Your task to perform on an android device: open app "Lyft - Rideshare, Bikes, Scooters & Transit" (install if not already installed) Image 0: 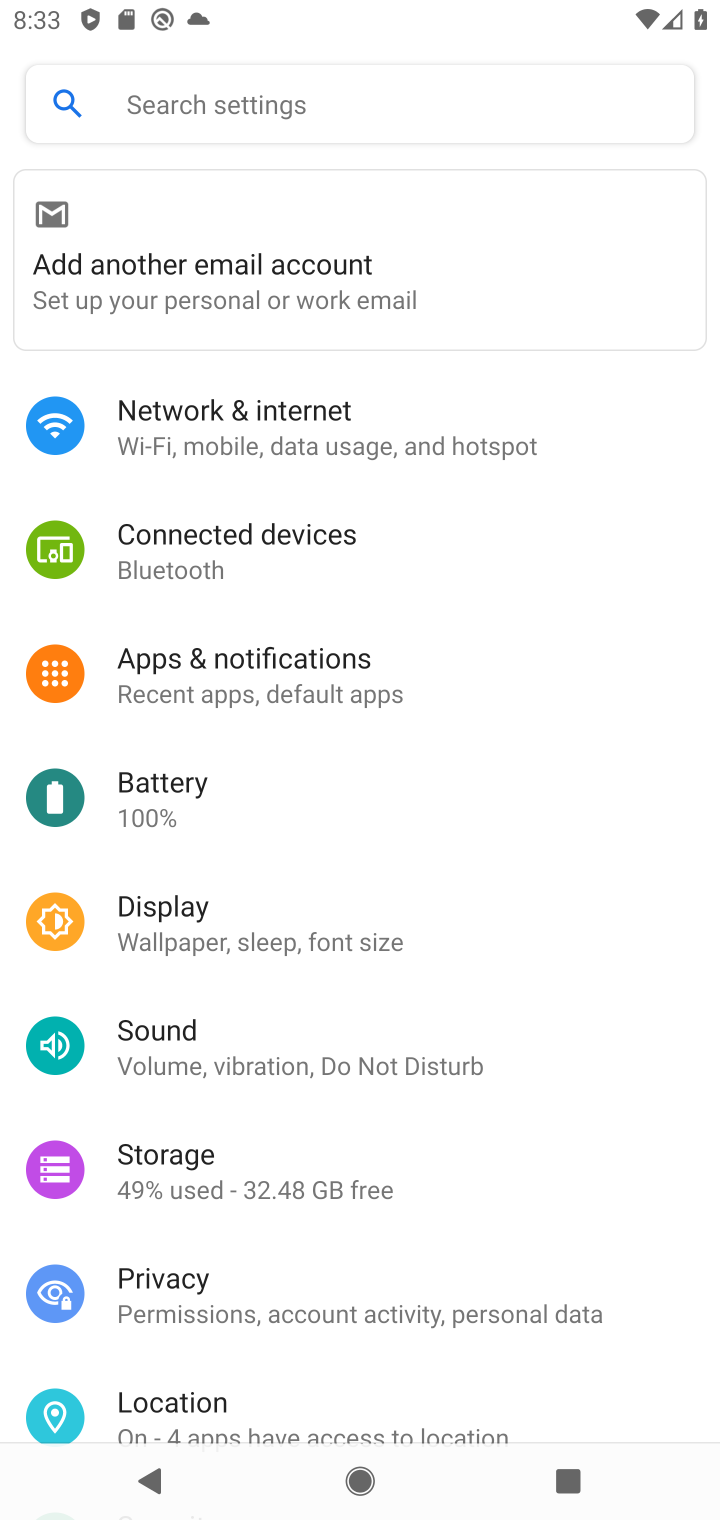
Step 0: press home button
Your task to perform on an android device: open app "Lyft - Rideshare, Bikes, Scooters & Transit" (install if not already installed) Image 1: 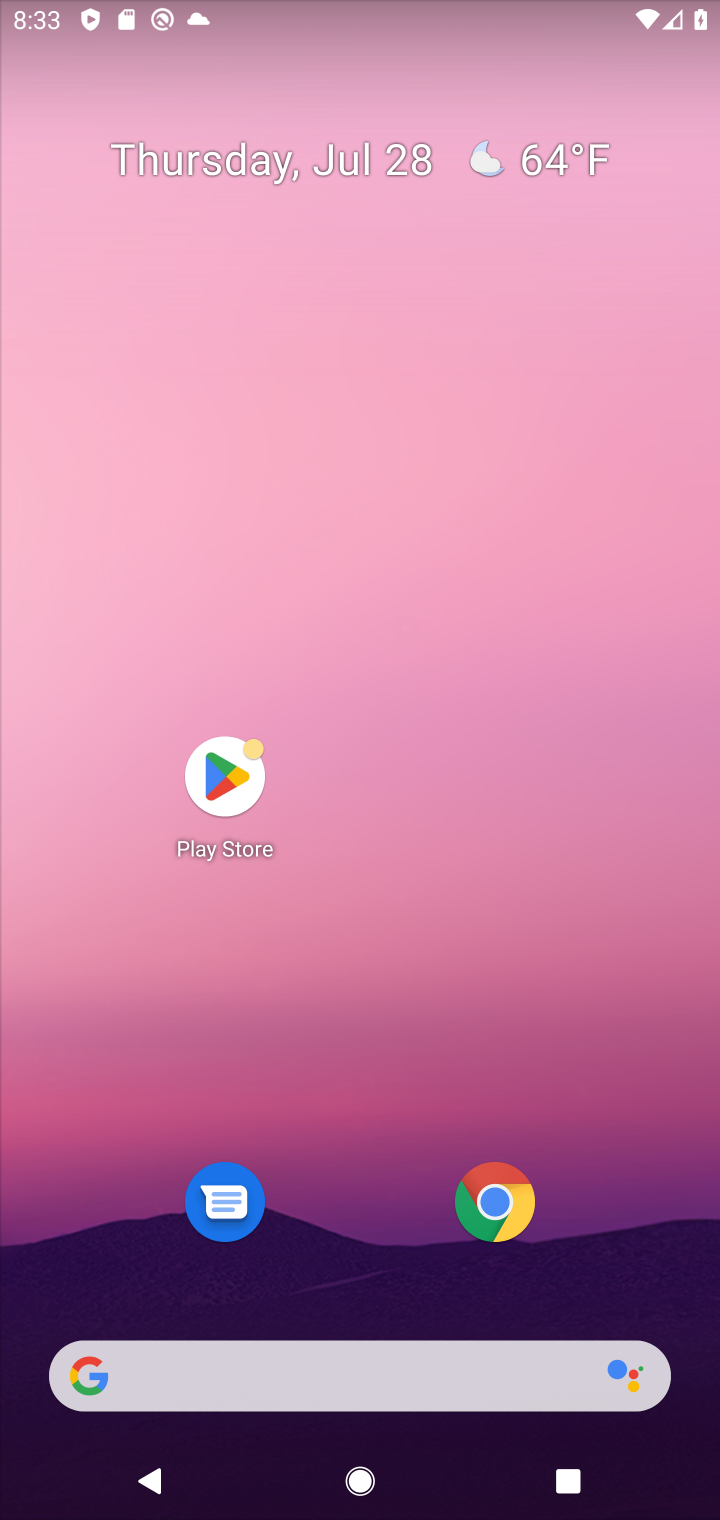
Step 1: click (229, 769)
Your task to perform on an android device: open app "Lyft - Rideshare, Bikes, Scooters & Transit" (install if not already installed) Image 2: 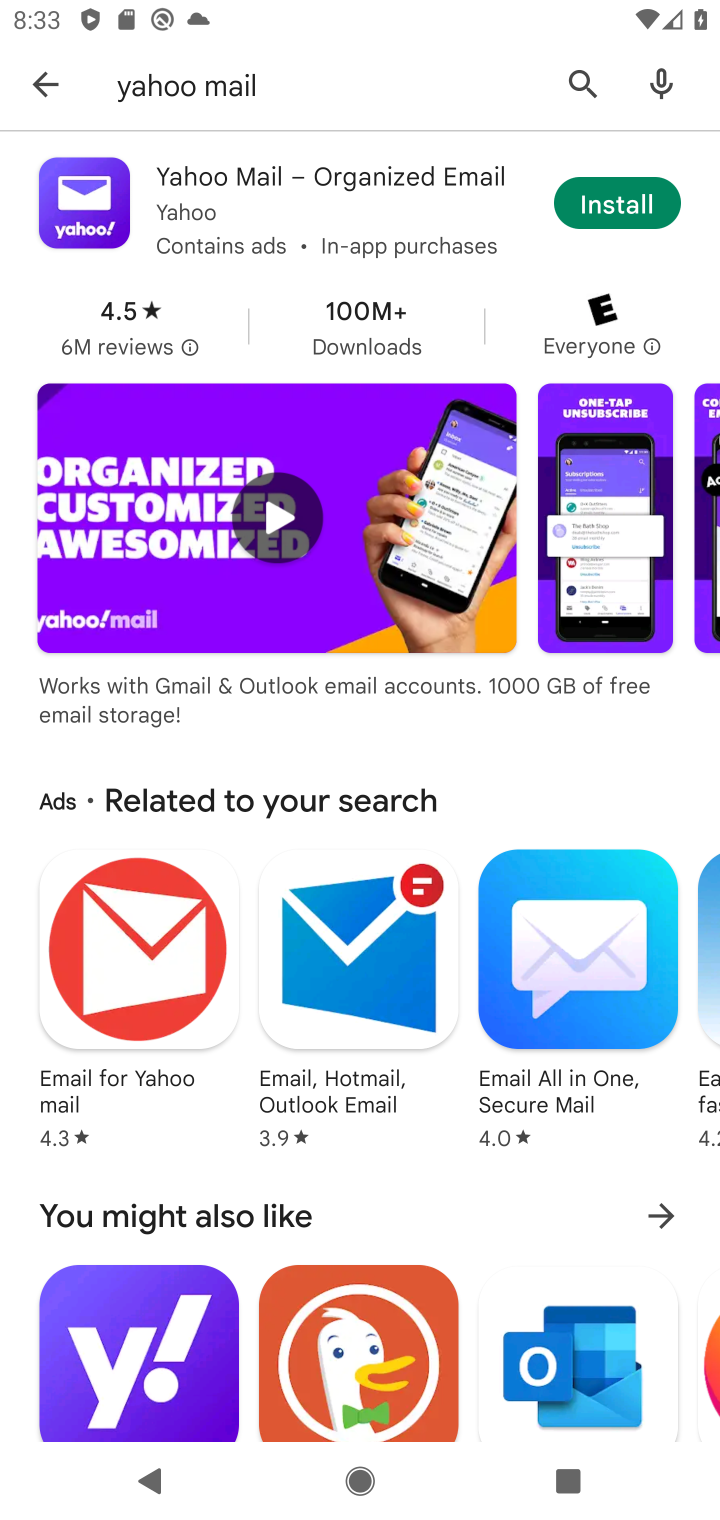
Step 2: click (39, 78)
Your task to perform on an android device: open app "Lyft - Rideshare, Bikes, Scooters & Transit" (install if not already installed) Image 3: 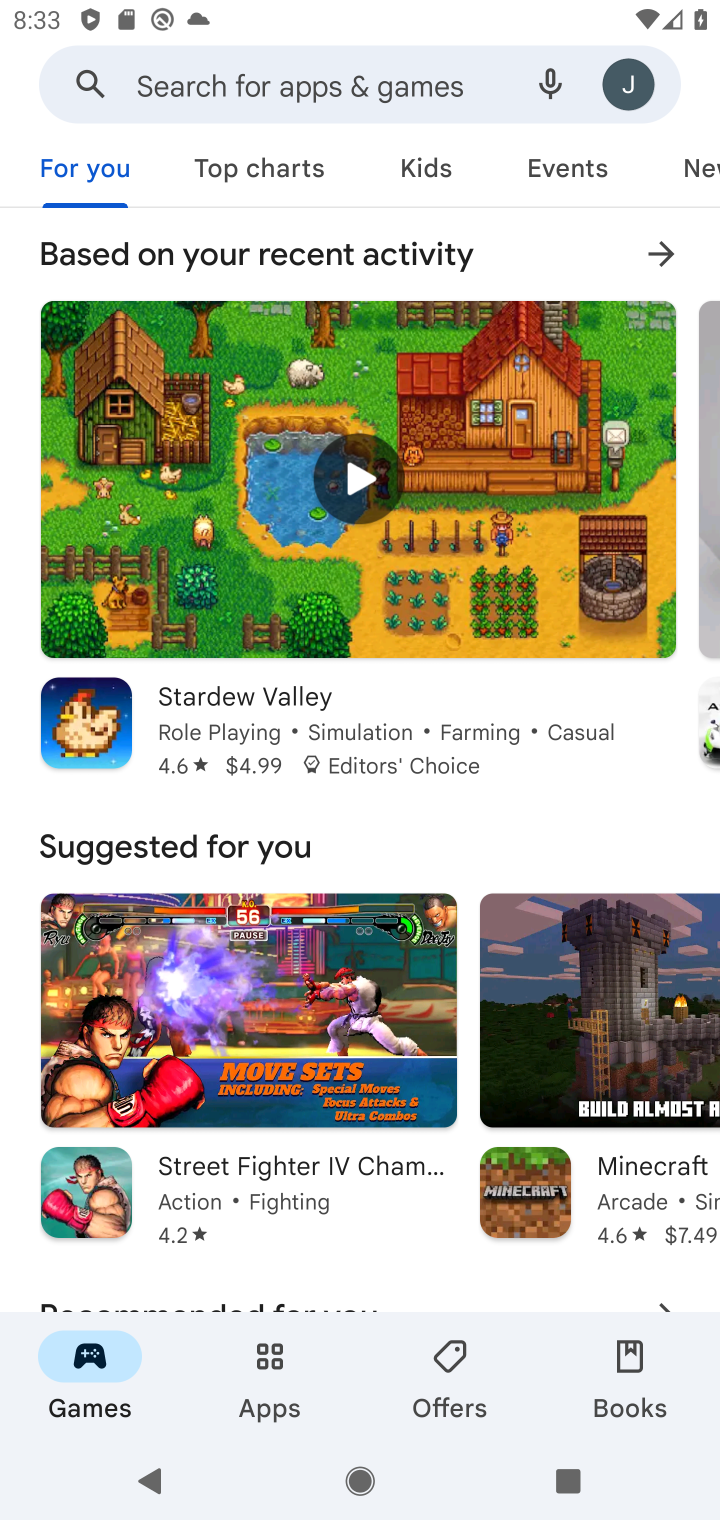
Step 3: click (368, 79)
Your task to perform on an android device: open app "Lyft - Rideshare, Bikes, Scooters & Transit" (install if not already installed) Image 4: 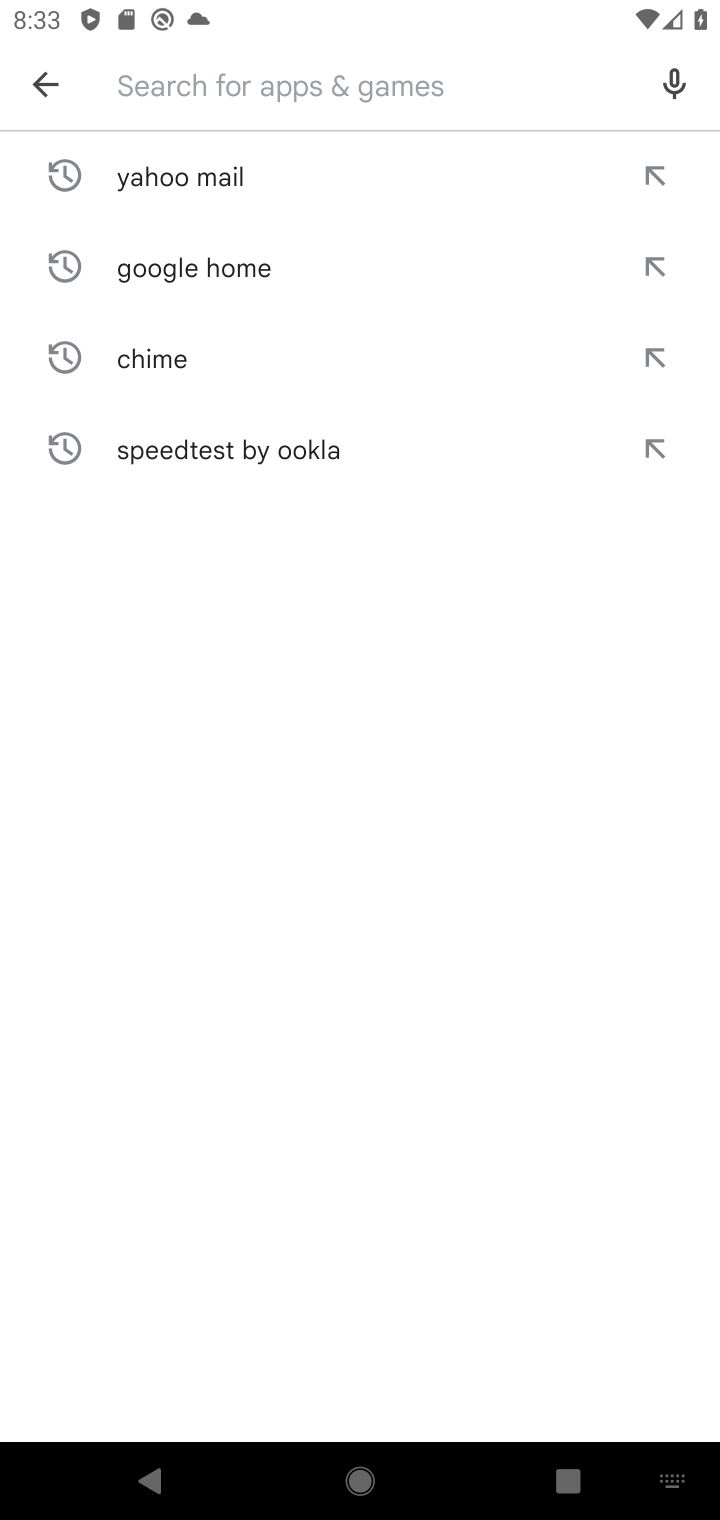
Step 4: type "lyft"
Your task to perform on an android device: open app "Lyft - Rideshare, Bikes, Scooters & Transit" (install if not already installed) Image 5: 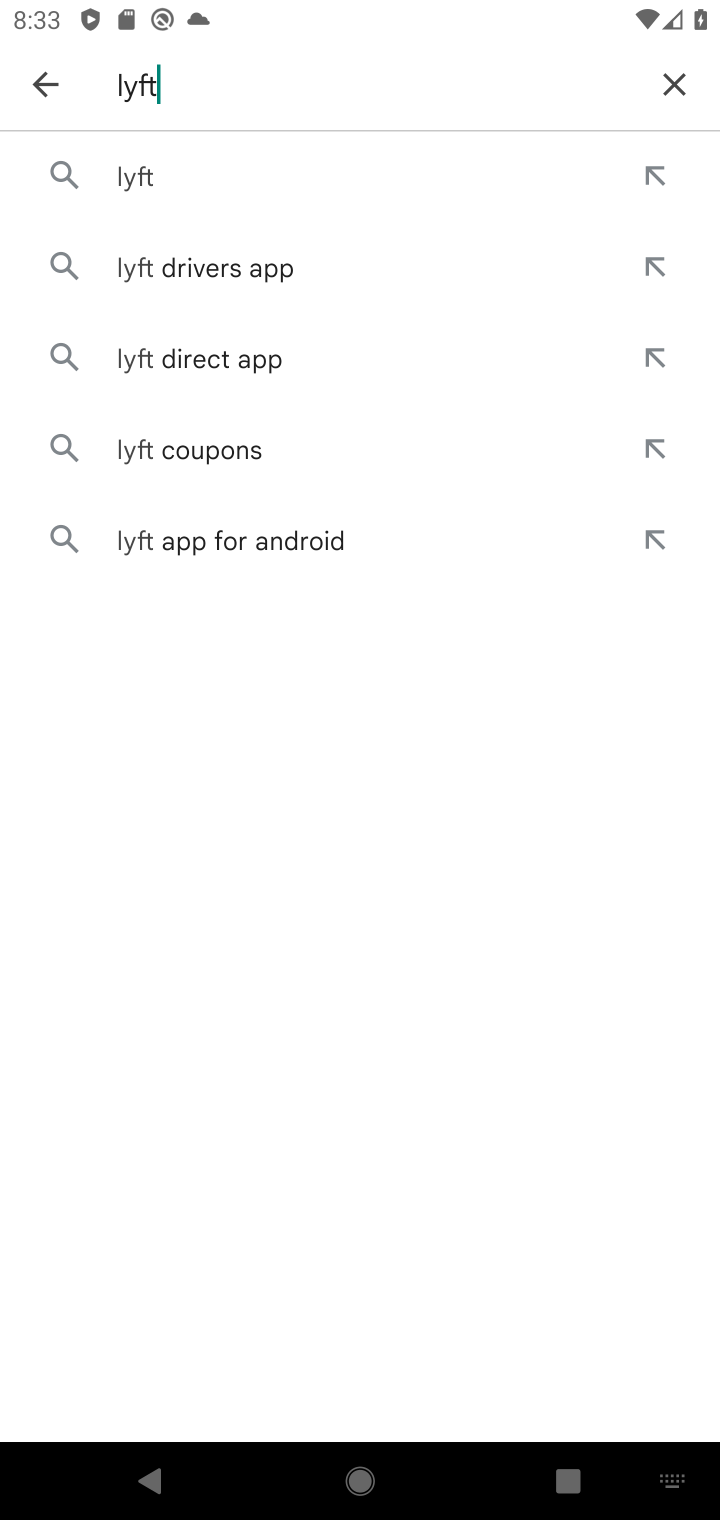
Step 5: click (153, 162)
Your task to perform on an android device: open app "Lyft - Rideshare, Bikes, Scooters & Transit" (install if not already installed) Image 6: 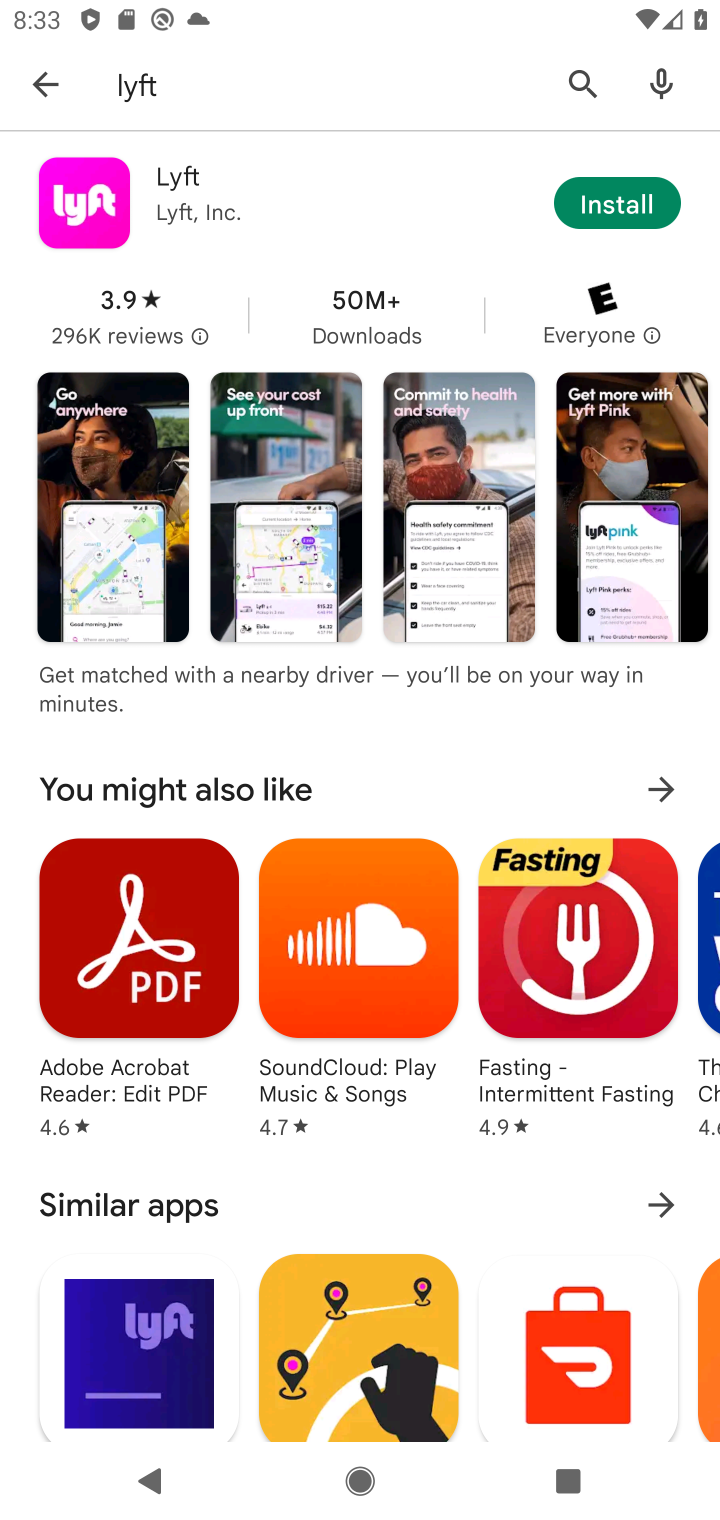
Step 6: task complete